Your task to perform on an android device: toggle javascript in the chrome app Image 0: 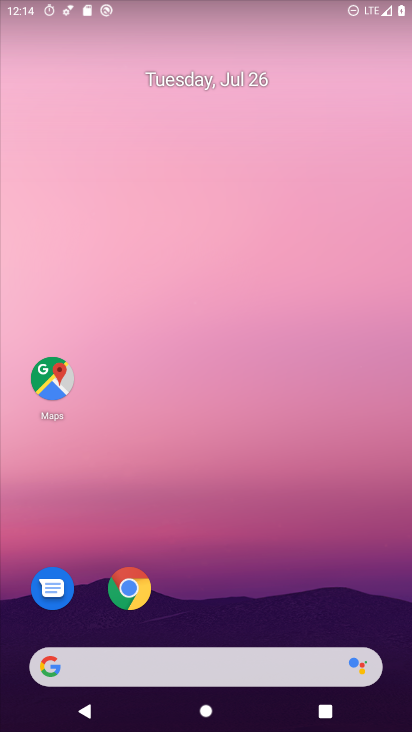
Step 0: click (146, 604)
Your task to perform on an android device: toggle javascript in the chrome app Image 1: 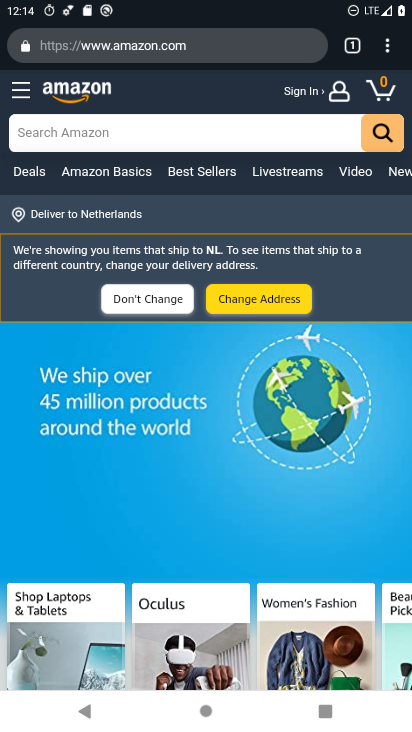
Step 1: click (386, 44)
Your task to perform on an android device: toggle javascript in the chrome app Image 2: 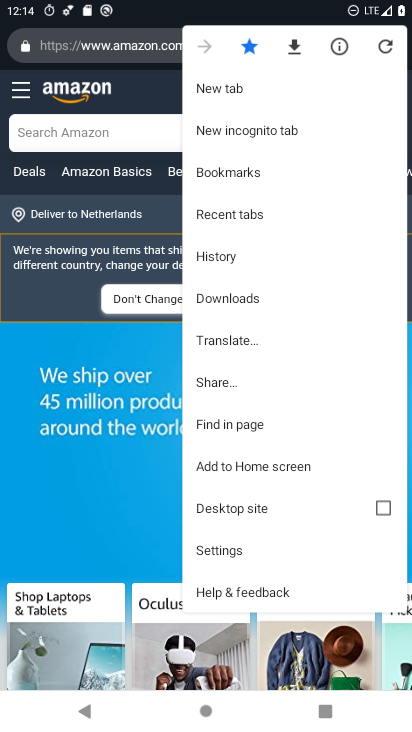
Step 2: click (220, 547)
Your task to perform on an android device: toggle javascript in the chrome app Image 3: 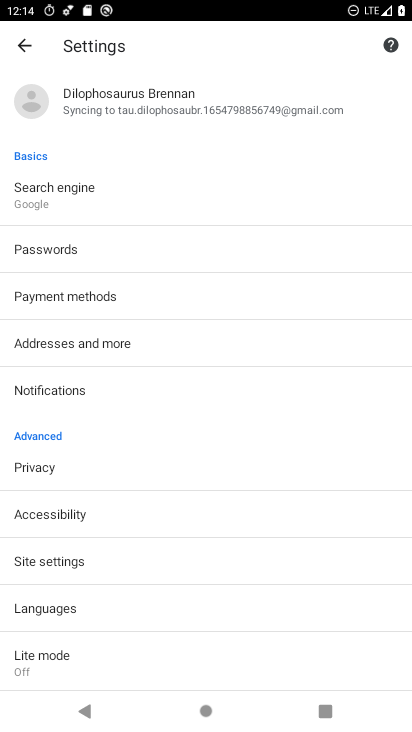
Step 3: click (88, 560)
Your task to perform on an android device: toggle javascript in the chrome app Image 4: 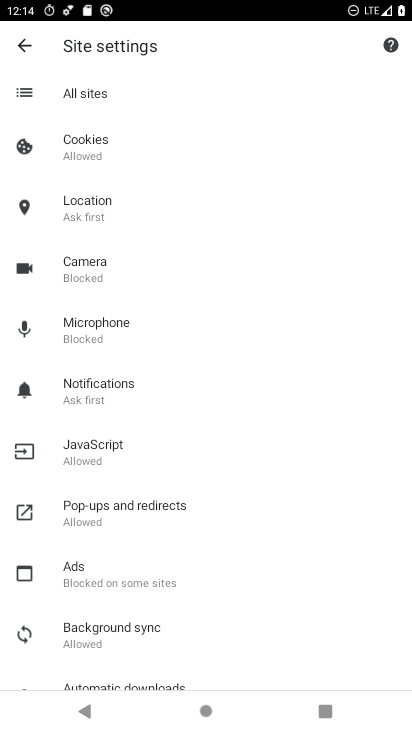
Step 4: click (139, 449)
Your task to perform on an android device: toggle javascript in the chrome app Image 5: 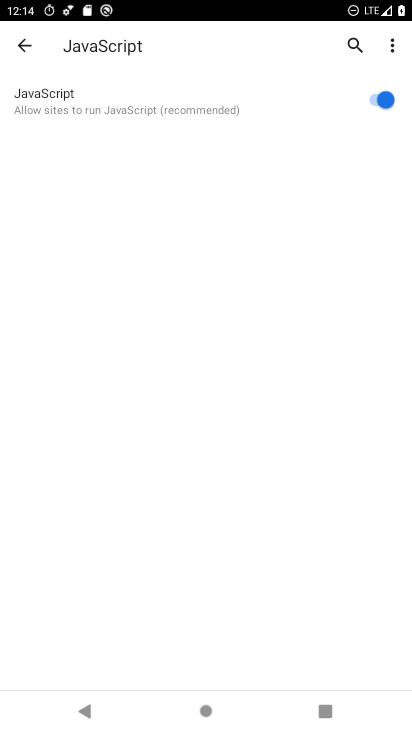
Step 5: click (377, 101)
Your task to perform on an android device: toggle javascript in the chrome app Image 6: 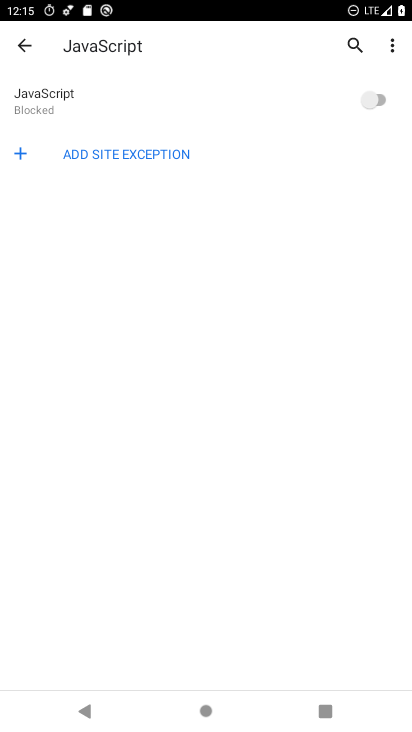
Step 6: task complete